Your task to perform on an android device: turn on data saver in the chrome app Image 0: 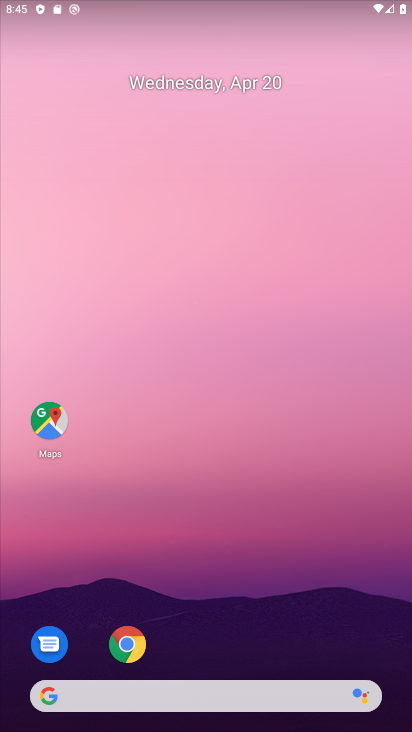
Step 0: drag from (331, 622) to (223, 77)
Your task to perform on an android device: turn on data saver in the chrome app Image 1: 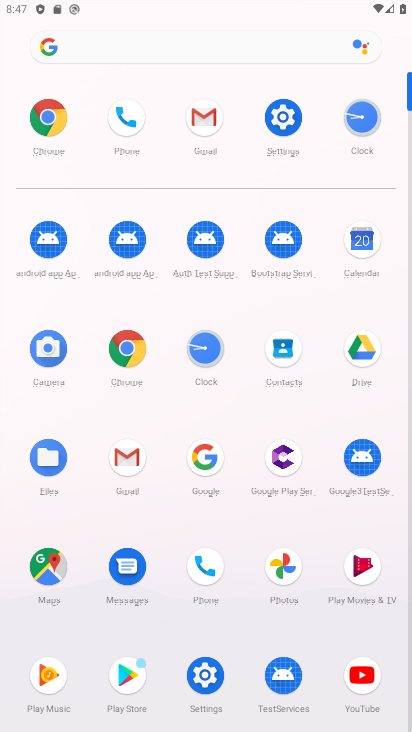
Step 1: click (55, 118)
Your task to perform on an android device: turn on data saver in the chrome app Image 2: 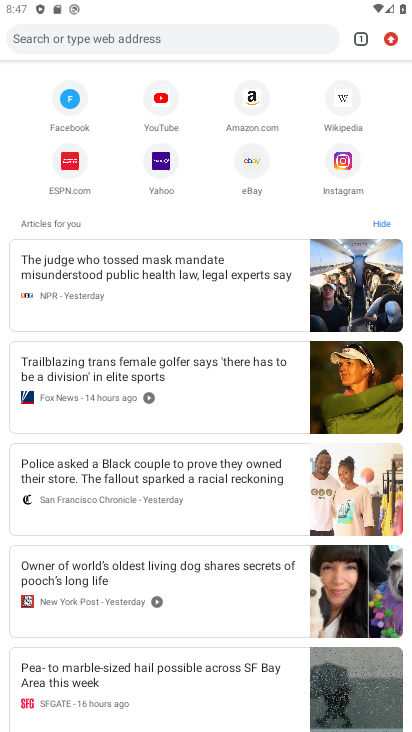
Step 2: click (392, 39)
Your task to perform on an android device: turn on data saver in the chrome app Image 3: 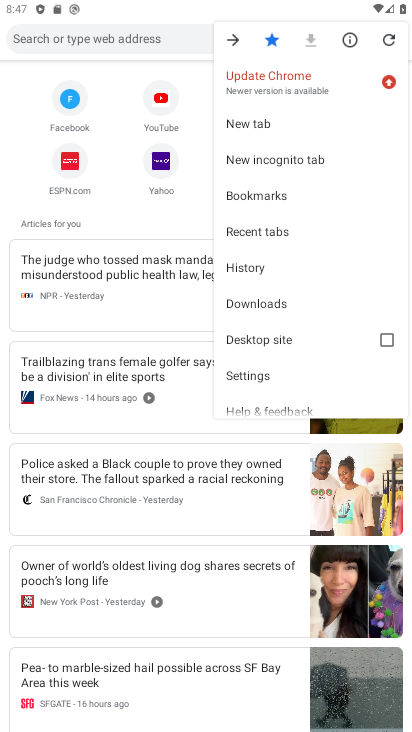
Step 3: click (267, 373)
Your task to perform on an android device: turn on data saver in the chrome app Image 4: 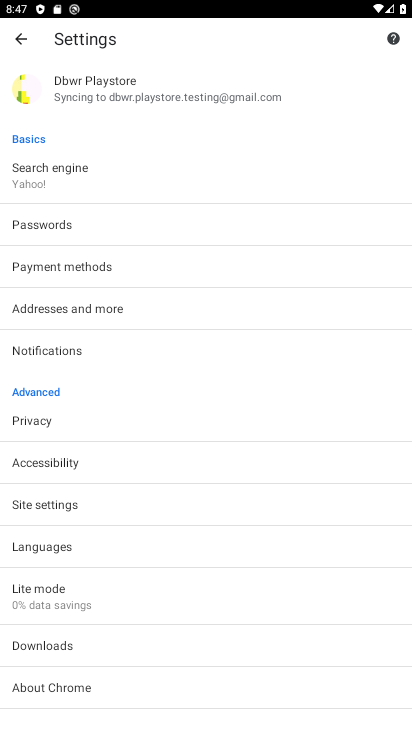
Step 4: click (119, 606)
Your task to perform on an android device: turn on data saver in the chrome app Image 5: 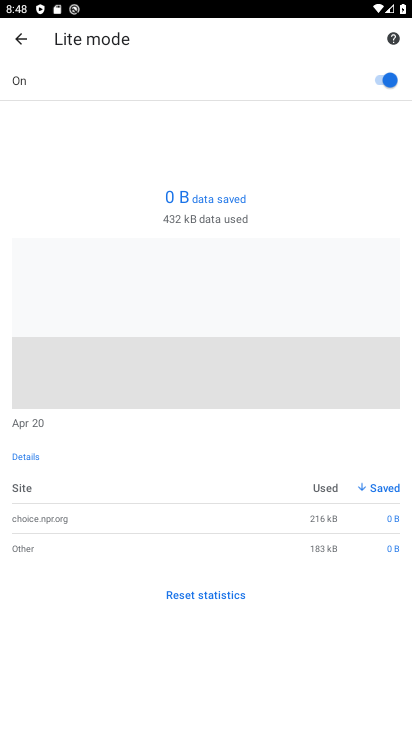
Step 5: task complete